Your task to perform on an android device: change keyboard looks Image 0: 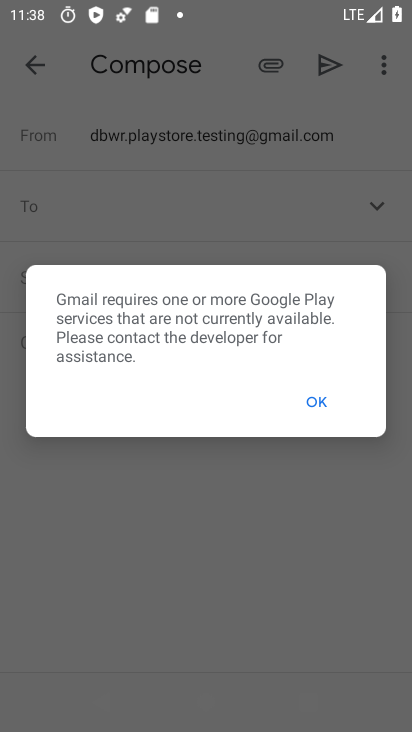
Step 0: press home button
Your task to perform on an android device: change keyboard looks Image 1: 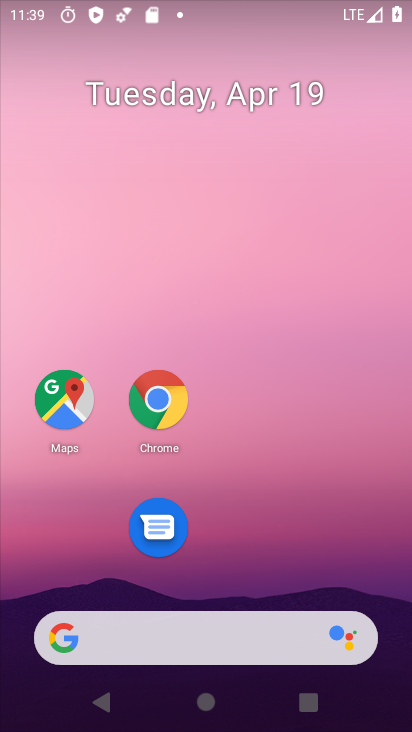
Step 1: drag from (272, 671) to (227, 179)
Your task to perform on an android device: change keyboard looks Image 2: 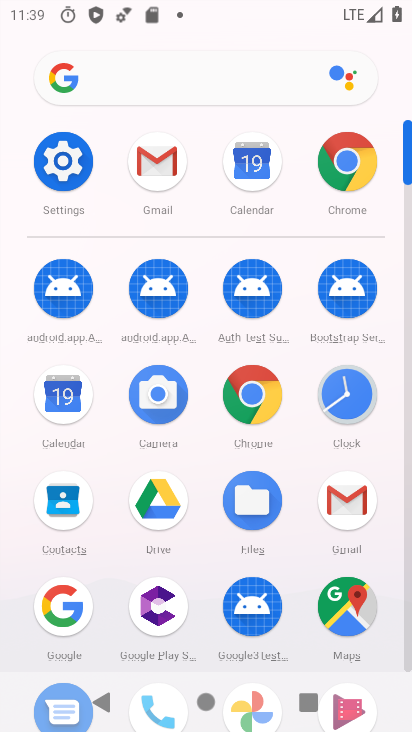
Step 2: click (56, 185)
Your task to perform on an android device: change keyboard looks Image 3: 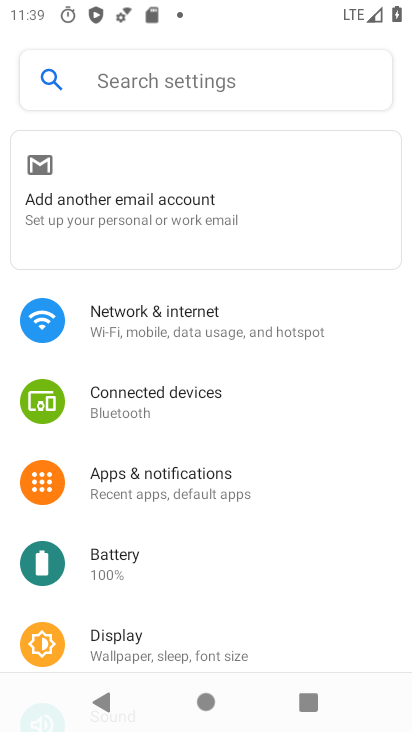
Step 3: click (166, 88)
Your task to perform on an android device: change keyboard looks Image 4: 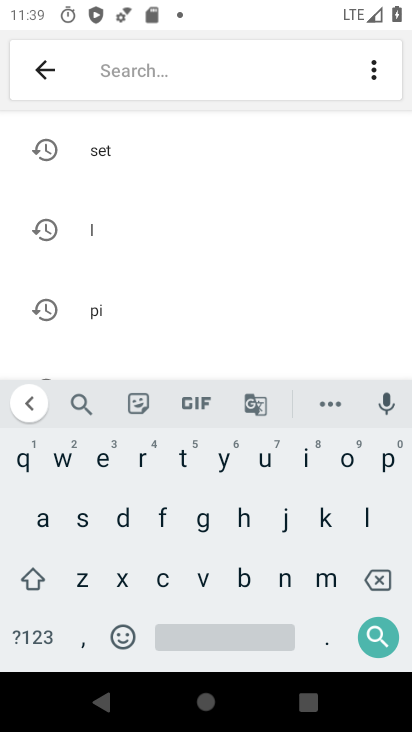
Step 4: click (305, 525)
Your task to perform on an android device: change keyboard looks Image 5: 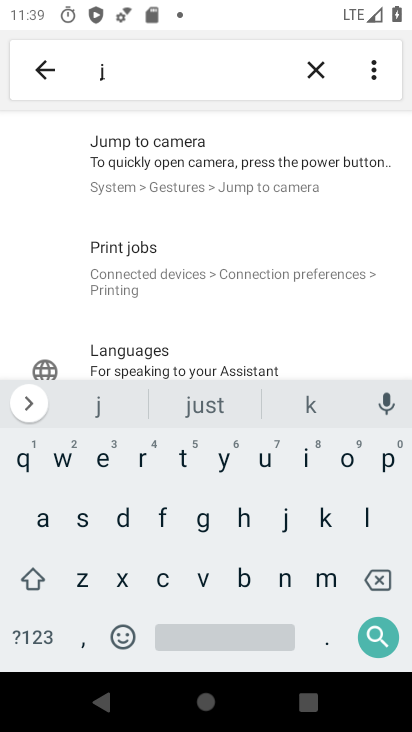
Step 5: click (375, 572)
Your task to perform on an android device: change keyboard looks Image 6: 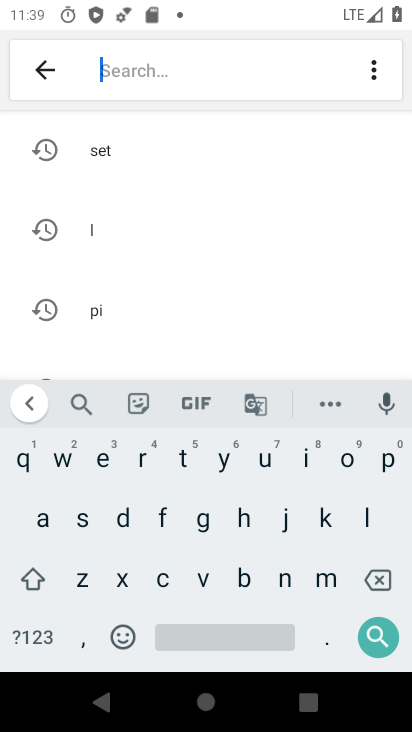
Step 6: click (332, 514)
Your task to perform on an android device: change keyboard looks Image 7: 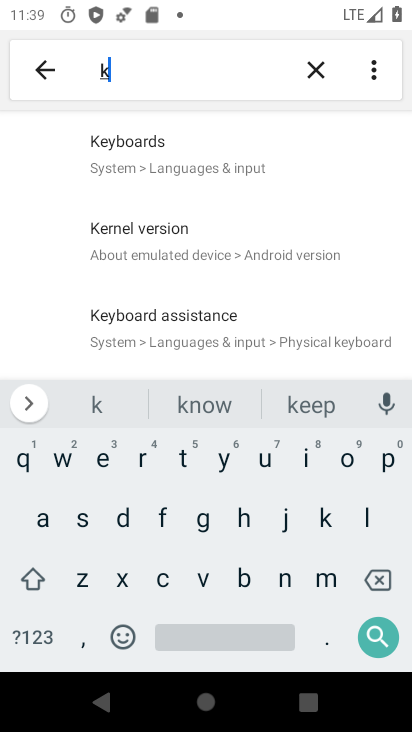
Step 7: click (103, 455)
Your task to perform on an android device: change keyboard looks Image 8: 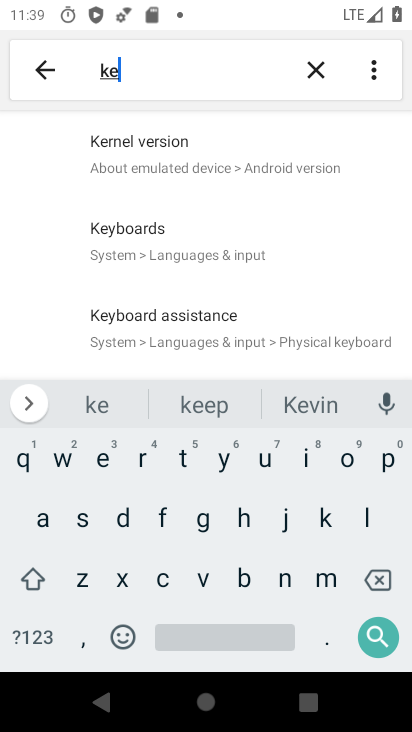
Step 8: click (136, 251)
Your task to perform on an android device: change keyboard looks Image 9: 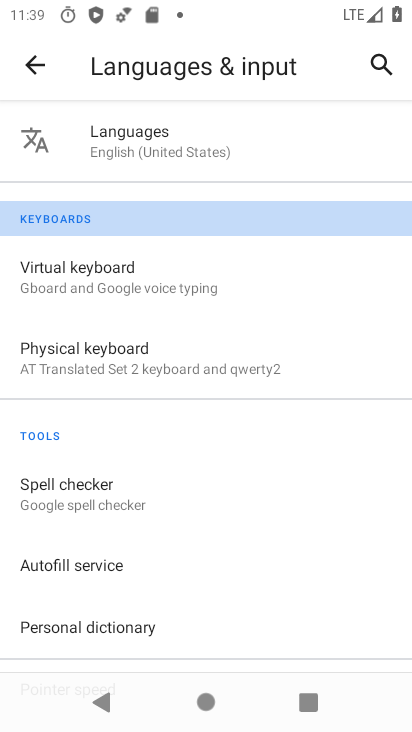
Step 9: click (107, 282)
Your task to perform on an android device: change keyboard looks Image 10: 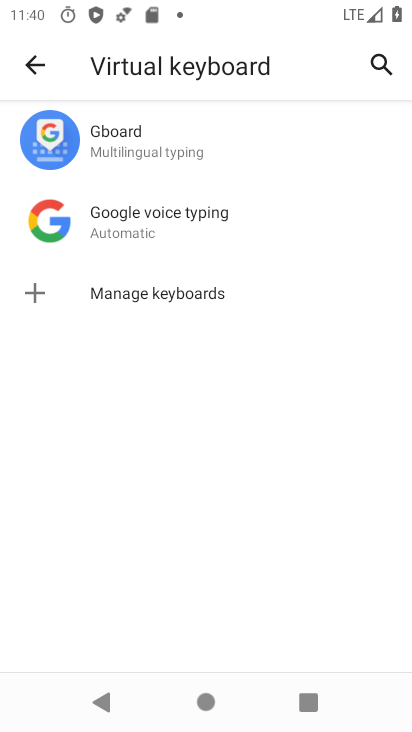
Step 10: click (148, 153)
Your task to perform on an android device: change keyboard looks Image 11: 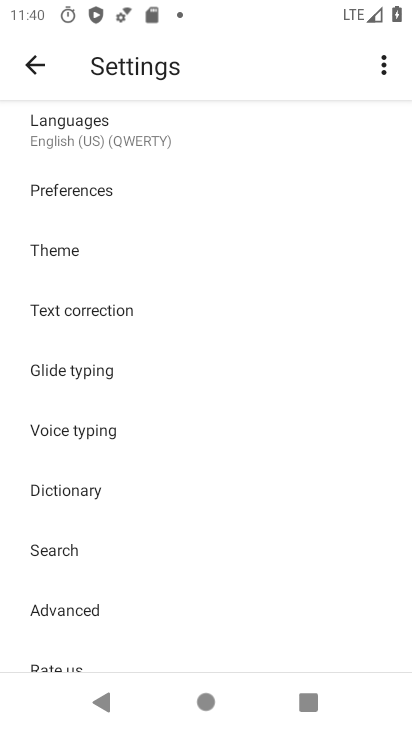
Step 11: click (65, 234)
Your task to perform on an android device: change keyboard looks Image 12: 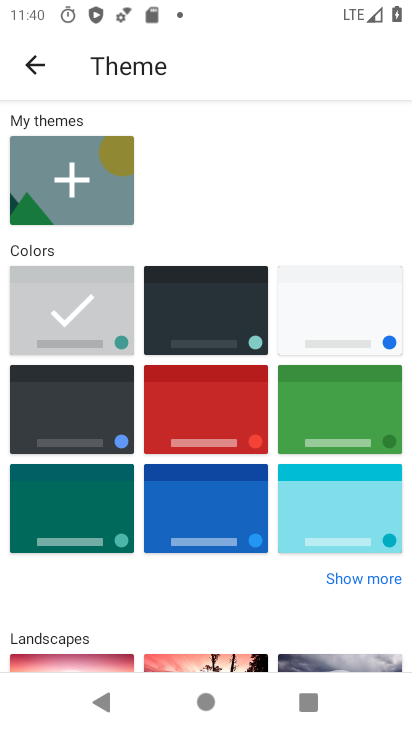
Step 12: click (182, 489)
Your task to perform on an android device: change keyboard looks Image 13: 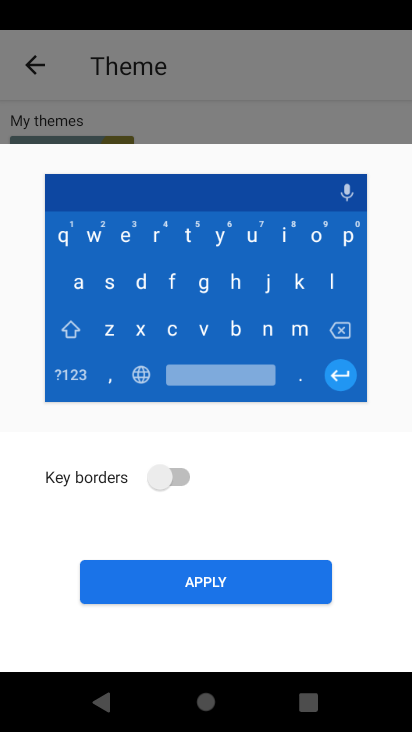
Step 13: click (172, 482)
Your task to perform on an android device: change keyboard looks Image 14: 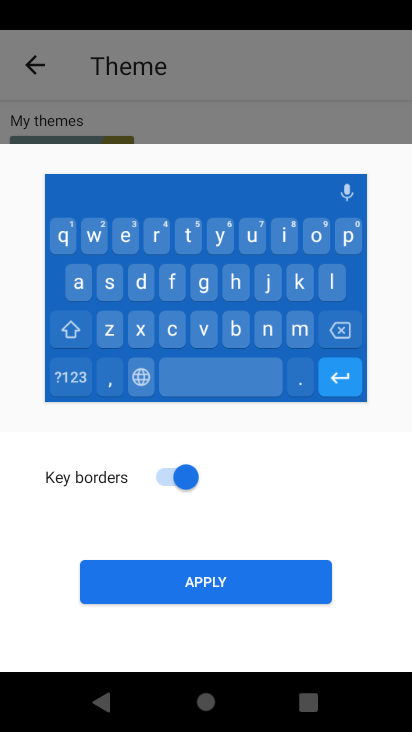
Step 14: click (199, 582)
Your task to perform on an android device: change keyboard looks Image 15: 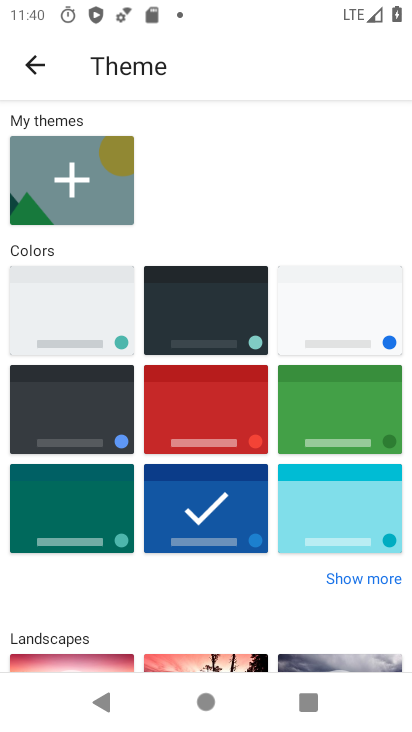
Step 15: task complete